Your task to perform on an android device: Play the last video I watched on Youtube Image 0: 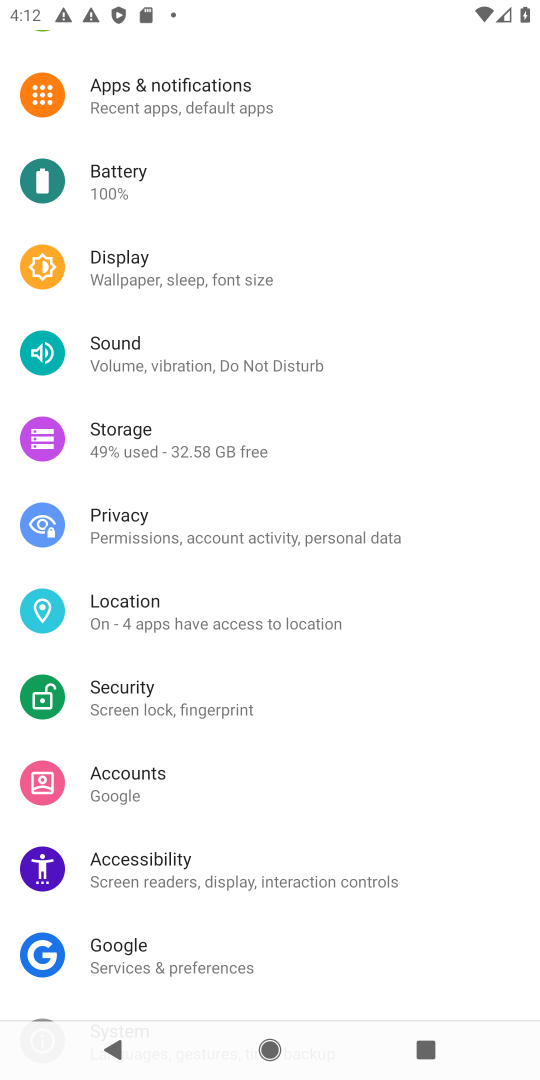
Step 0: press home button
Your task to perform on an android device: Play the last video I watched on Youtube Image 1: 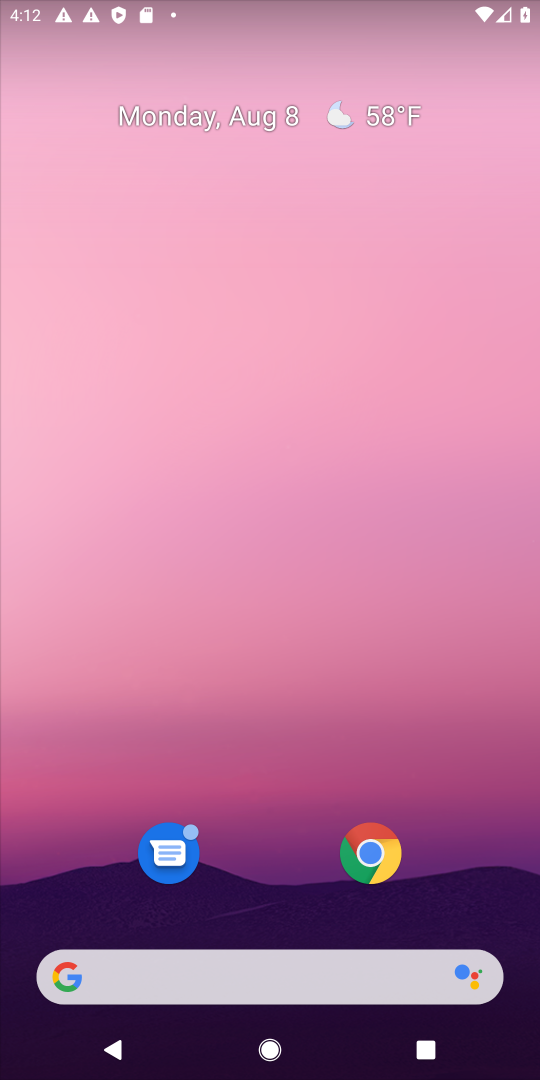
Step 1: drag from (308, 880) to (411, 103)
Your task to perform on an android device: Play the last video I watched on Youtube Image 2: 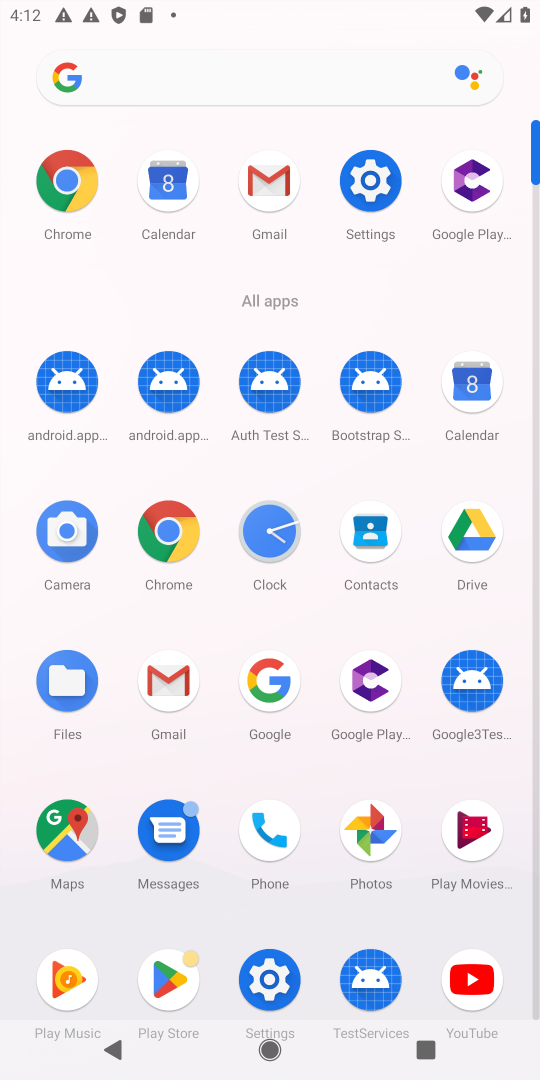
Step 2: click (466, 985)
Your task to perform on an android device: Play the last video I watched on Youtube Image 3: 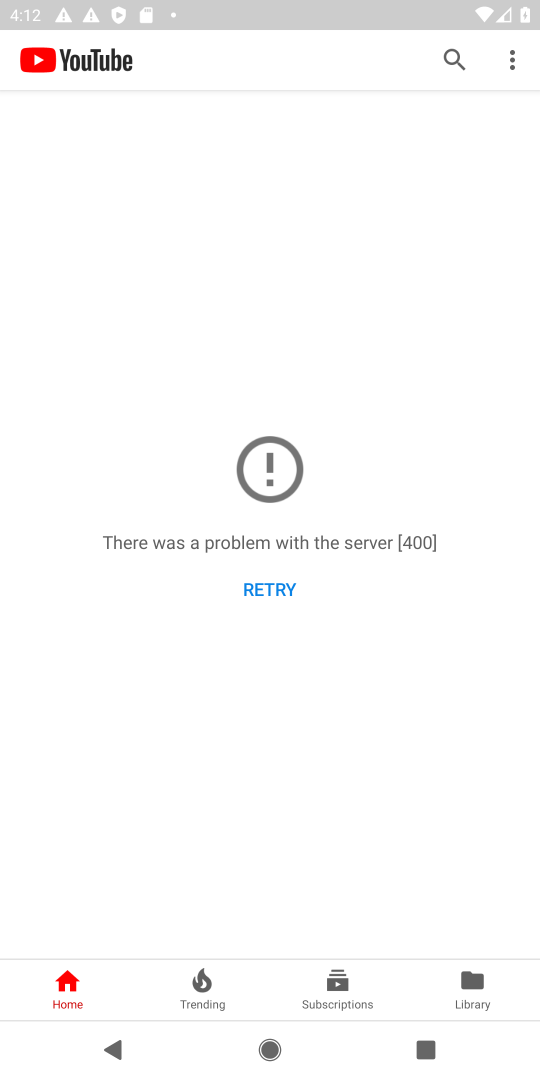
Step 3: click (337, 974)
Your task to perform on an android device: Play the last video I watched on Youtube Image 4: 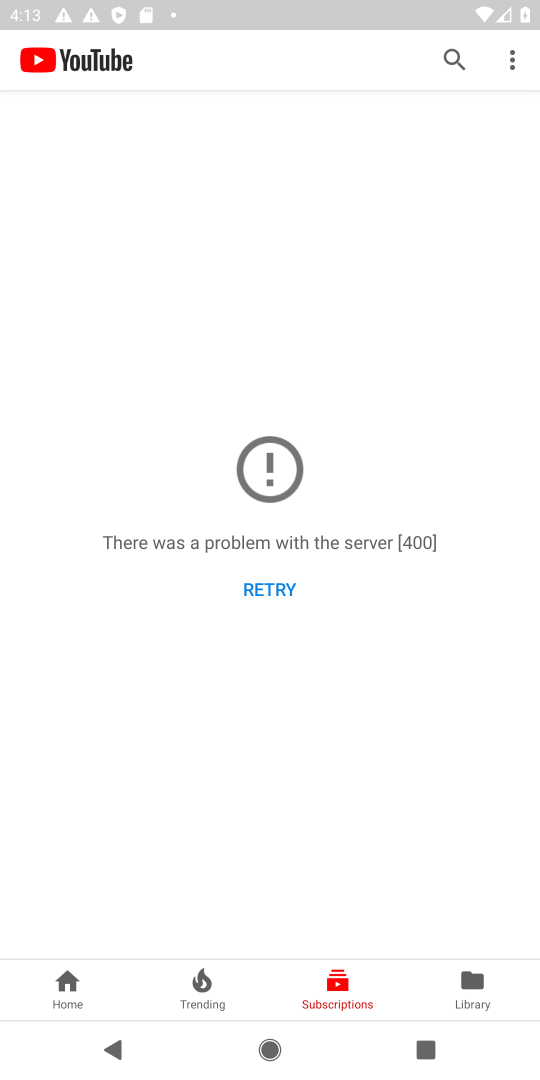
Step 4: click (460, 964)
Your task to perform on an android device: Play the last video I watched on Youtube Image 5: 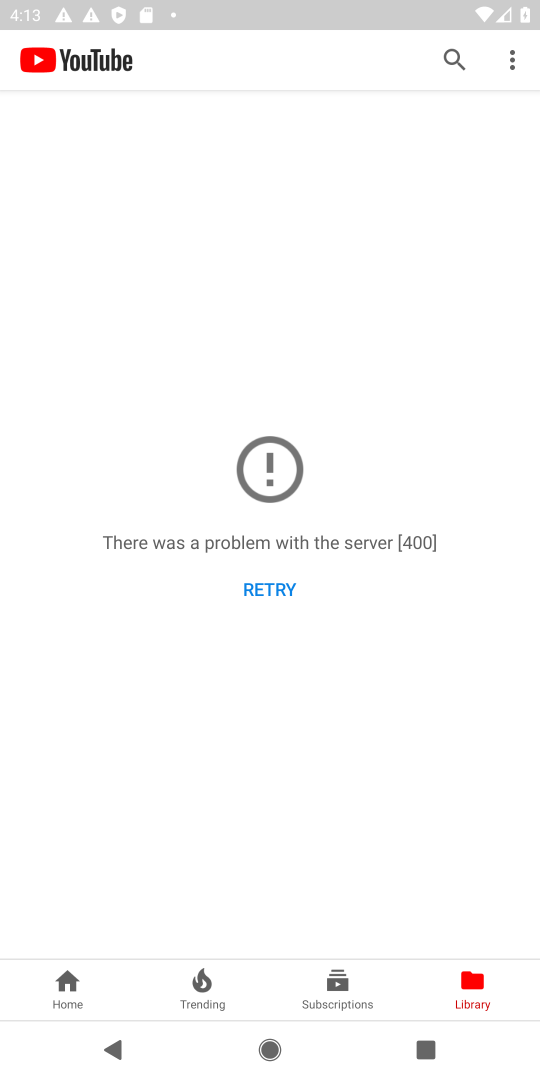
Step 5: task complete